Your task to perform on an android device: What's on my calendar today? Image 0: 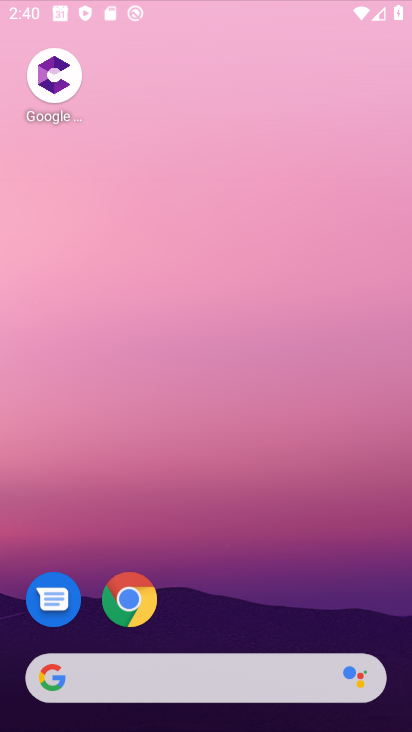
Step 0: click (353, 63)
Your task to perform on an android device: What's on my calendar today? Image 1: 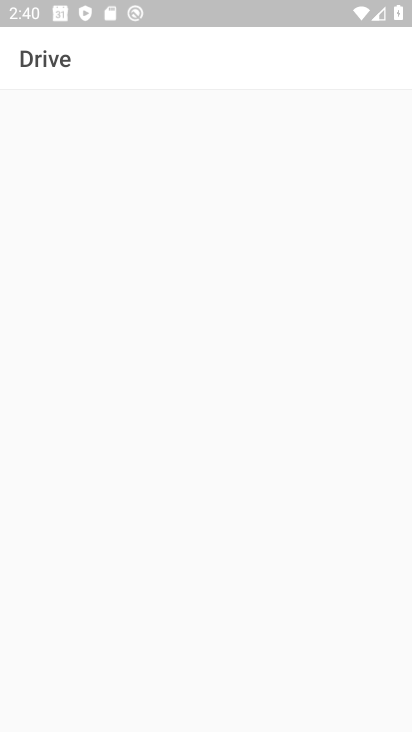
Step 1: press home button
Your task to perform on an android device: What's on my calendar today? Image 2: 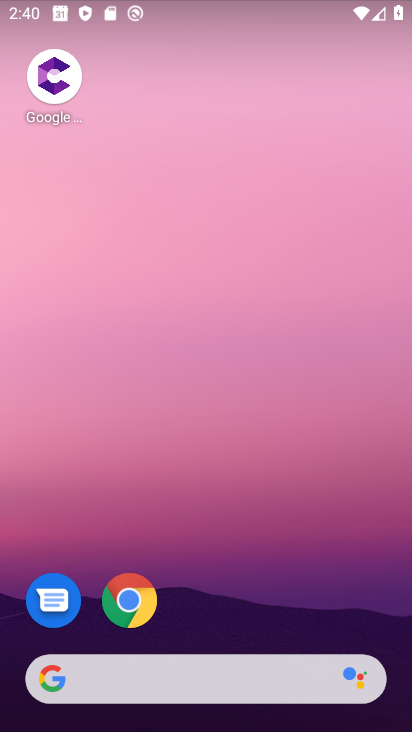
Step 2: drag from (401, 695) to (401, 21)
Your task to perform on an android device: What's on my calendar today? Image 3: 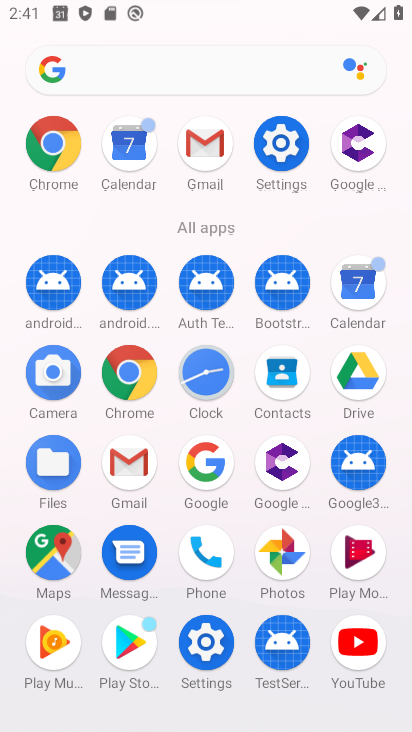
Step 3: click (354, 275)
Your task to perform on an android device: What's on my calendar today? Image 4: 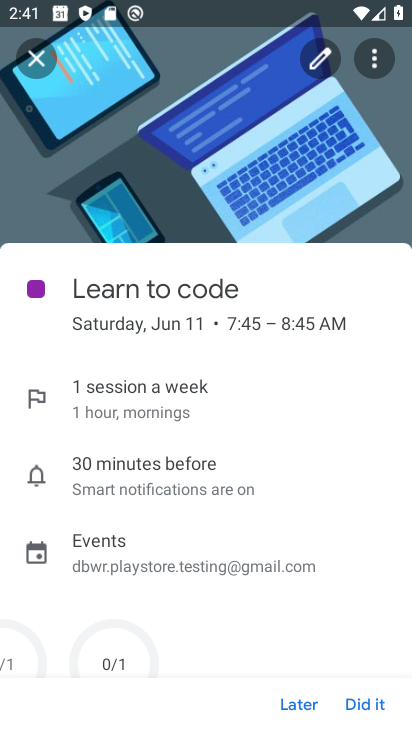
Step 4: click (306, 709)
Your task to perform on an android device: What's on my calendar today? Image 5: 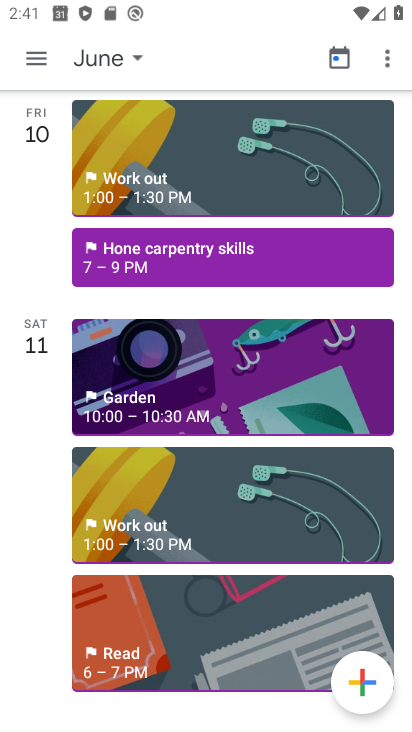
Step 5: click (133, 58)
Your task to perform on an android device: What's on my calendar today? Image 6: 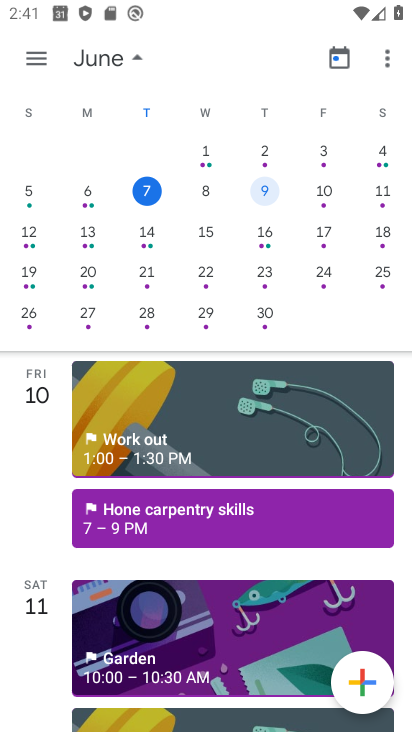
Step 6: click (147, 186)
Your task to perform on an android device: What's on my calendar today? Image 7: 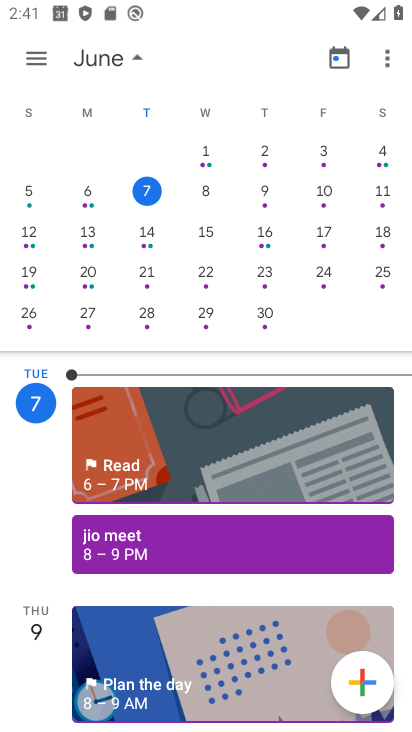
Step 7: task complete